Your task to perform on an android device: Open my contact list Image 0: 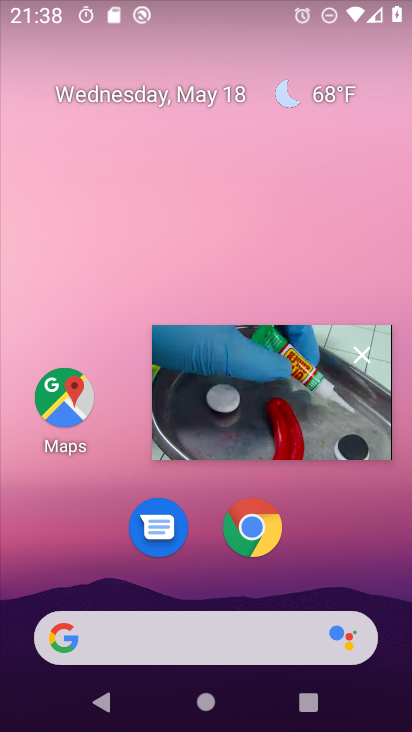
Step 0: click (358, 348)
Your task to perform on an android device: Open my contact list Image 1: 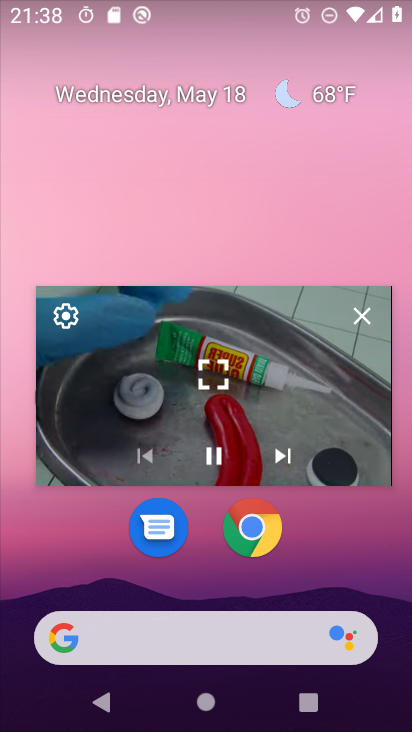
Step 1: click (360, 316)
Your task to perform on an android device: Open my contact list Image 2: 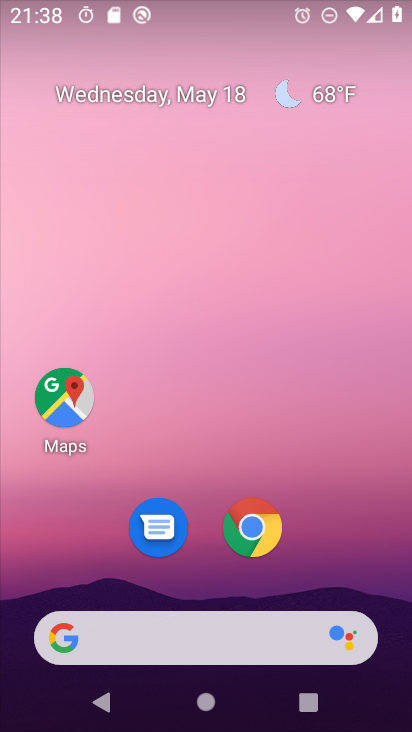
Step 2: drag from (396, 692) to (376, 249)
Your task to perform on an android device: Open my contact list Image 3: 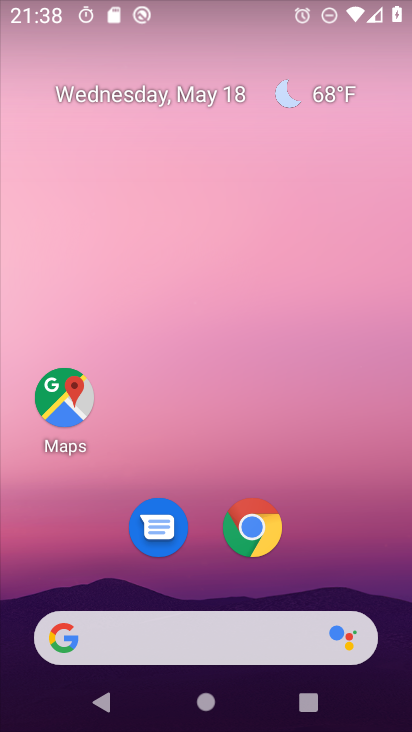
Step 3: drag from (386, 635) to (365, 226)
Your task to perform on an android device: Open my contact list Image 4: 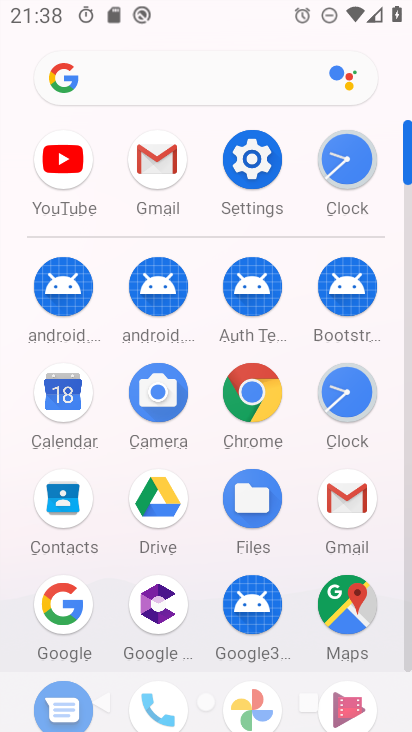
Step 4: click (64, 521)
Your task to perform on an android device: Open my contact list Image 5: 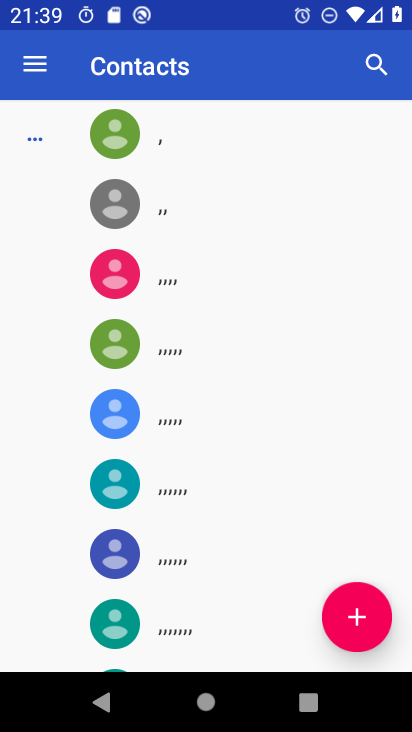
Step 5: click (347, 624)
Your task to perform on an android device: Open my contact list Image 6: 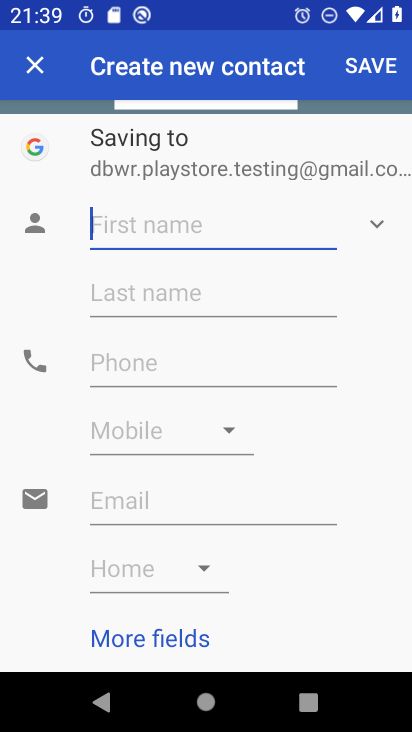
Step 6: task complete